Your task to perform on an android device: set default search engine in the chrome app Image 0: 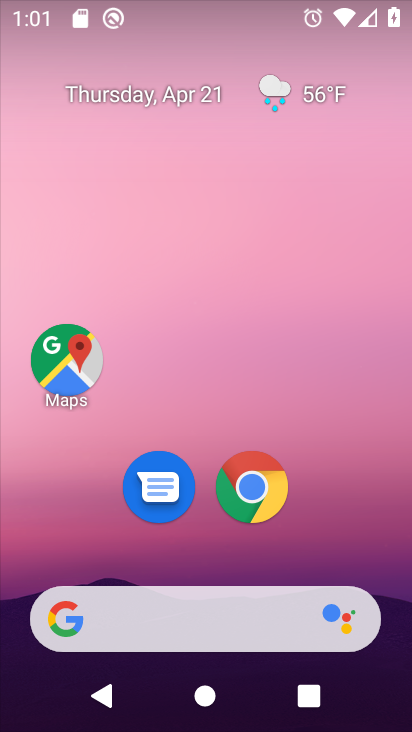
Step 0: click (262, 489)
Your task to perform on an android device: set default search engine in the chrome app Image 1: 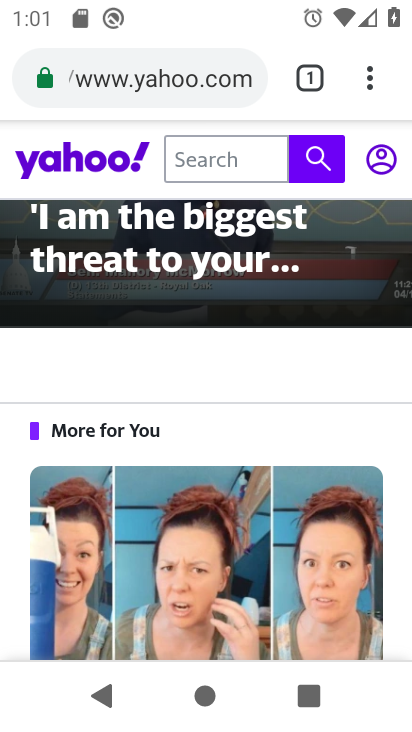
Step 1: drag from (368, 79) to (89, 542)
Your task to perform on an android device: set default search engine in the chrome app Image 2: 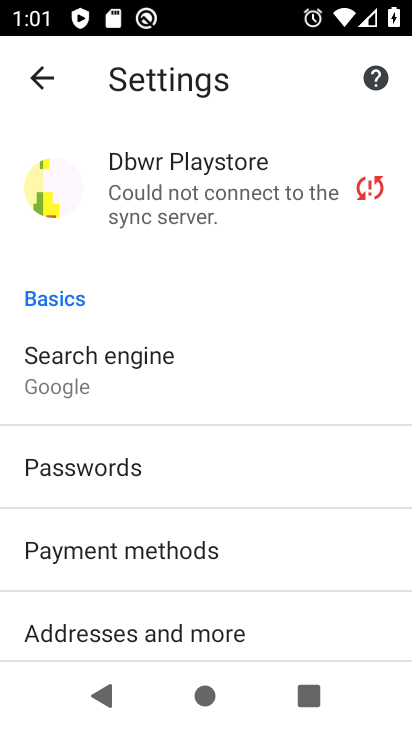
Step 2: click (76, 356)
Your task to perform on an android device: set default search engine in the chrome app Image 3: 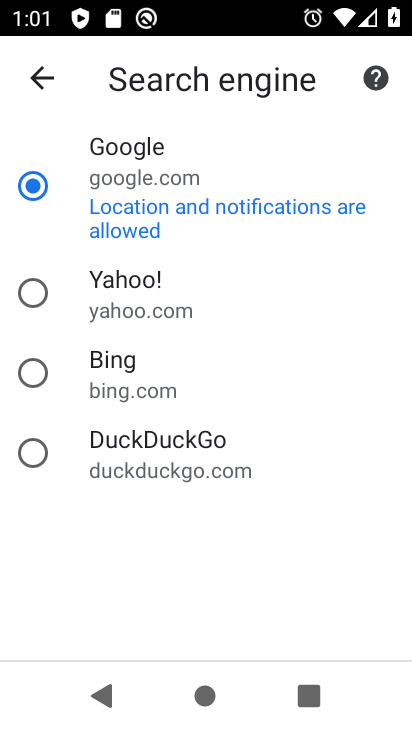
Step 3: click (114, 458)
Your task to perform on an android device: set default search engine in the chrome app Image 4: 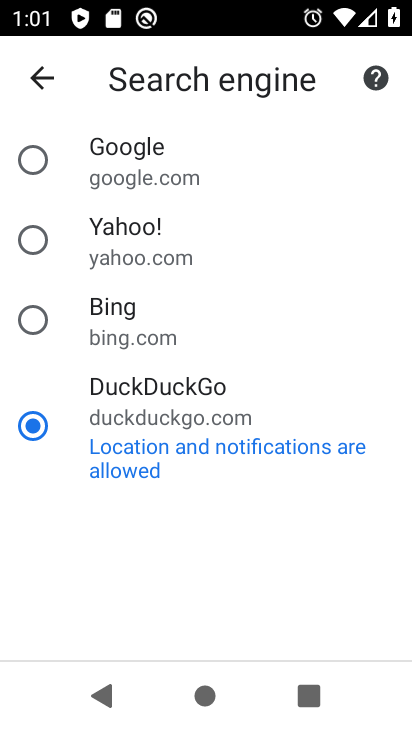
Step 4: task complete